Your task to perform on an android device: allow cookies in the chrome app Image 0: 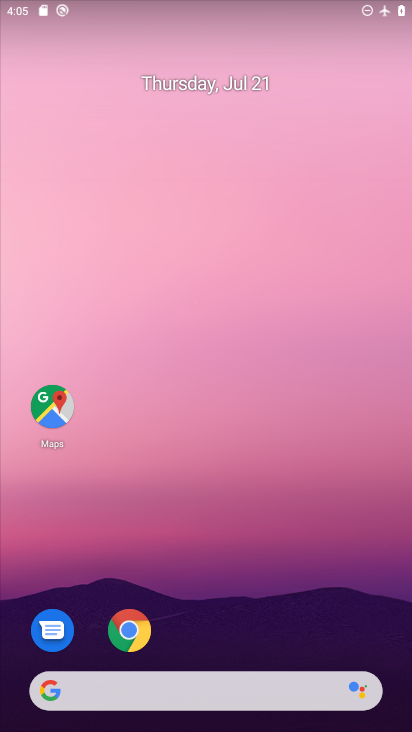
Step 0: drag from (191, 667) to (399, 446)
Your task to perform on an android device: allow cookies in the chrome app Image 1: 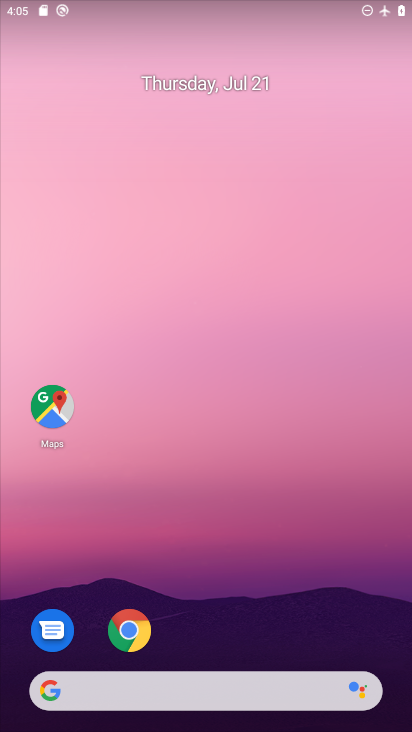
Step 1: click (132, 628)
Your task to perform on an android device: allow cookies in the chrome app Image 2: 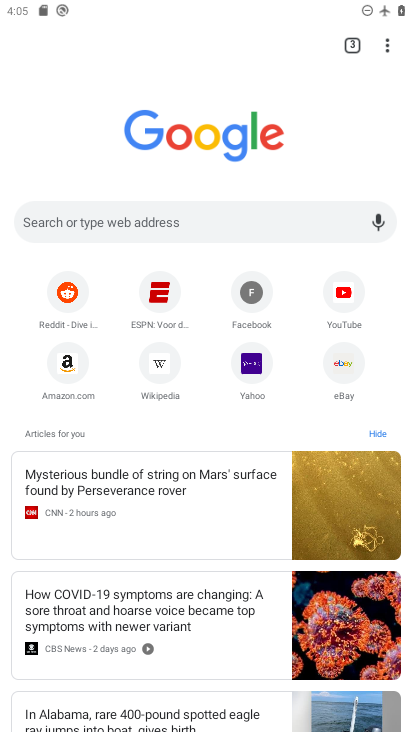
Step 2: click (377, 53)
Your task to perform on an android device: allow cookies in the chrome app Image 3: 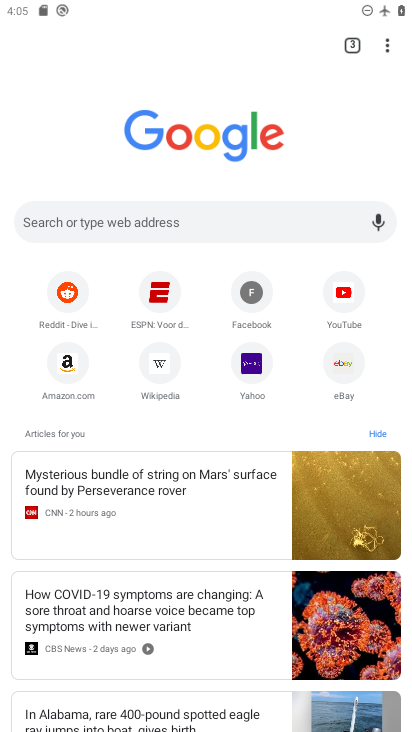
Step 3: drag from (383, 46) to (225, 384)
Your task to perform on an android device: allow cookies in the chrome app Image 4: 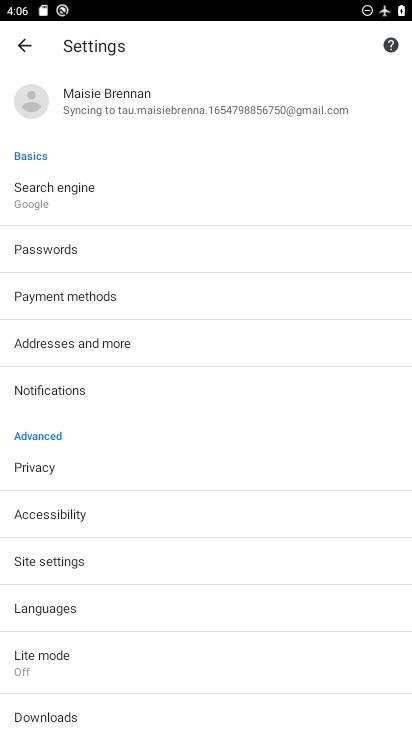
Step 4: click (68, 547)
Your task to perform on an android device: allow cookies in the chrome app Image 5: 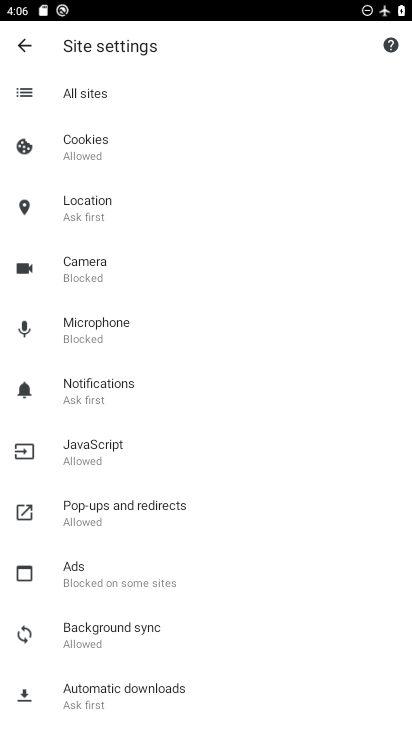
Step 5: click (103, 148)
Your task to perform on an android device: allow cookies in the chrome app Image 6: 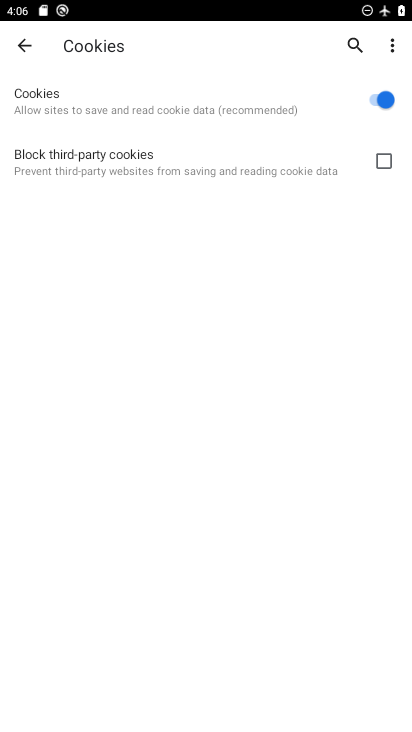
Step 6: task complete